Your task to perform on an android device: open a bookmark in the chrome app Image 0: 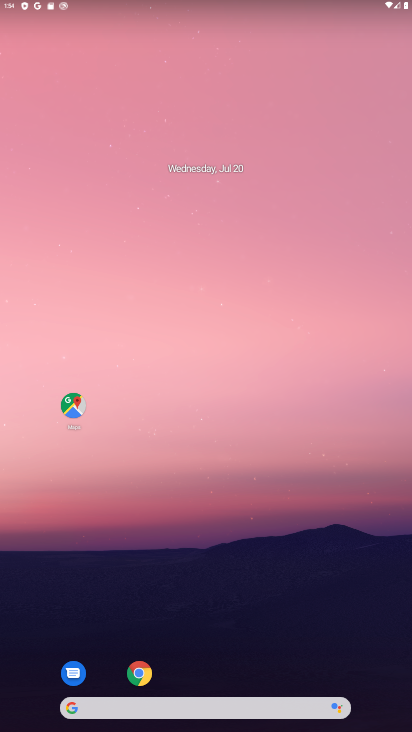
Step 0: click (265, 135)
Your task to perform on an android device: open a bookmark in the chrome app Image 1: 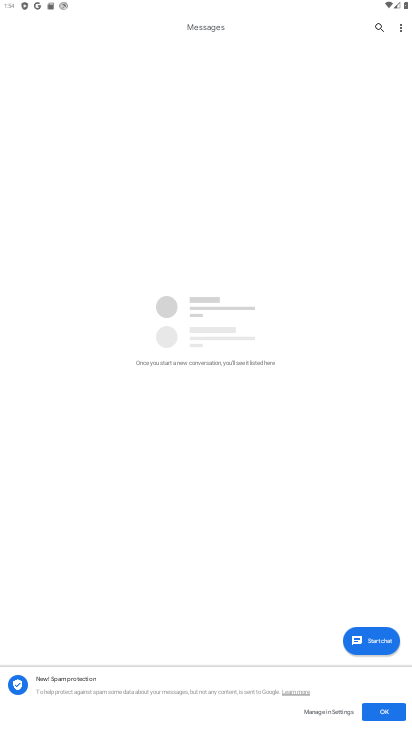
Step 1: press home button
Your task to perform on an android device: open a bookmark in the chrome app Image 2: 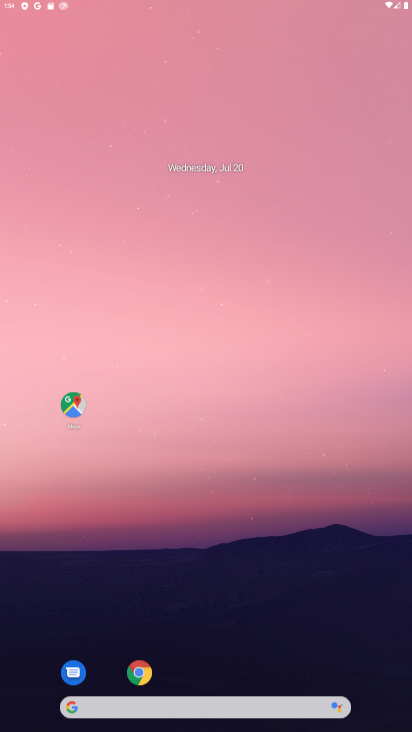
Step 2: drag from (179, 584) to (294, 64)
Your task to perform on an android device: open a bookmark in the chrome app Image 3: 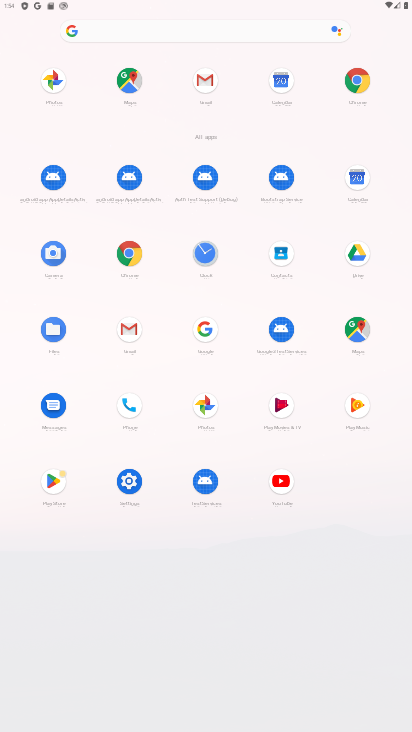
Step 3: click (125, 257)
Your task to perform on an android device: open a bookmark in the chrome app Image 4: 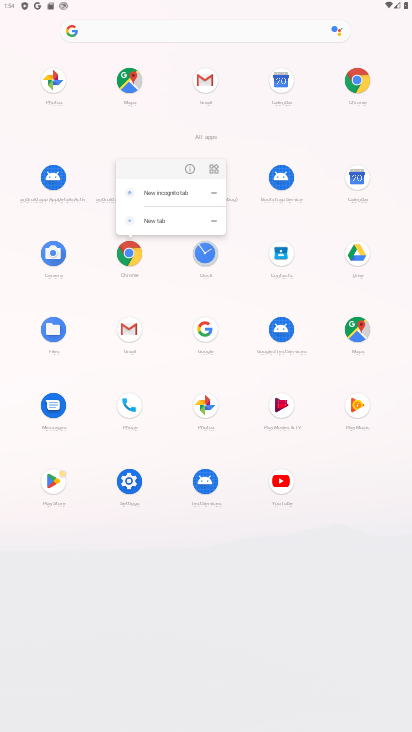
Step 4: click (189, 167)
Your task to perform on an android device: open a bookmark in the chrome app Image 5: 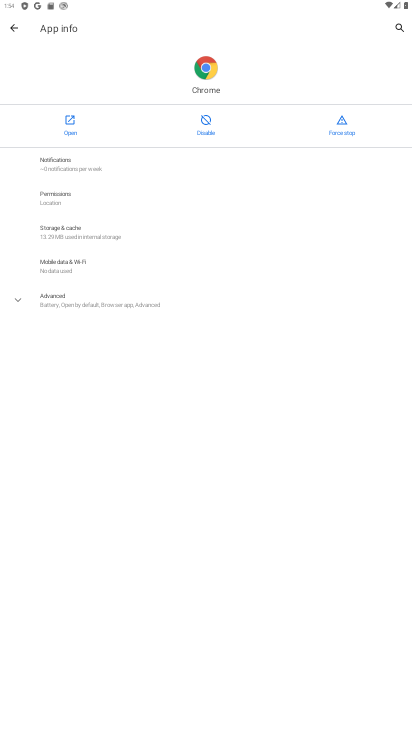
Step 5: click (72, 123)
Your task to perform on an android device: open a bookmark in the chrome app Image 6: 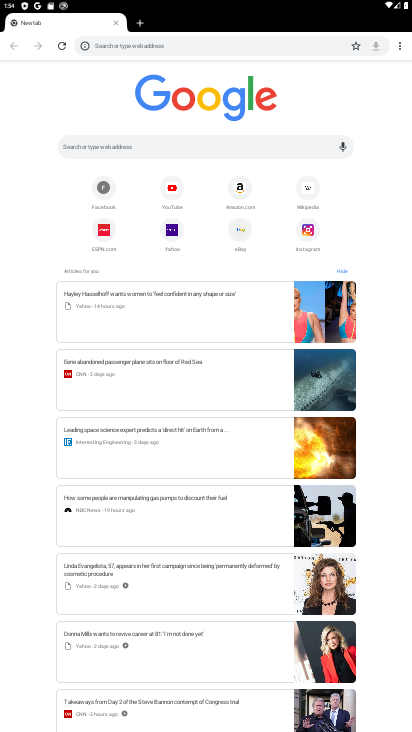
Step 6: task complete